Your task to perform on an android device: turn on showing notifications on the lock screen Image 0: 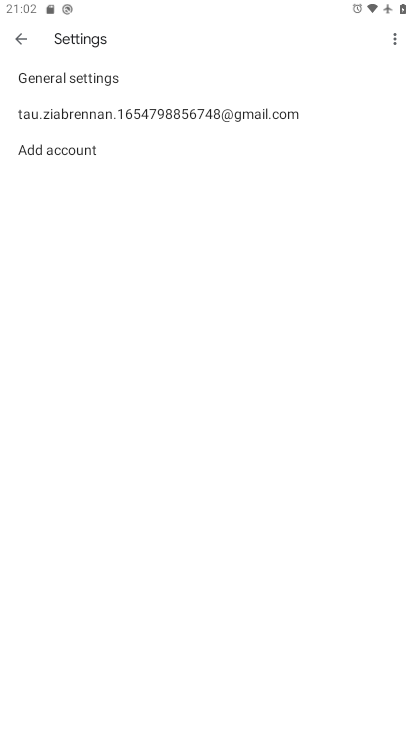
Step 0: press home button
Your task to perform on an android device: turn on showing notifications on the lock screen Image 1: 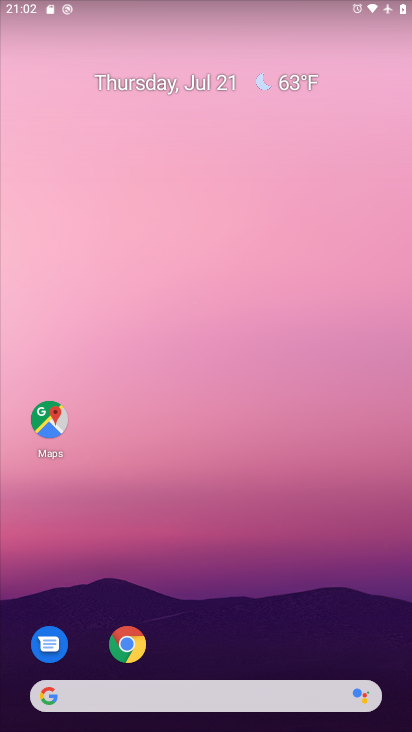
Step 1: drag from (285, 660) to (221, 198)
Your task to perform on an android device: turn on showing notifications on the lock screen Image 2: 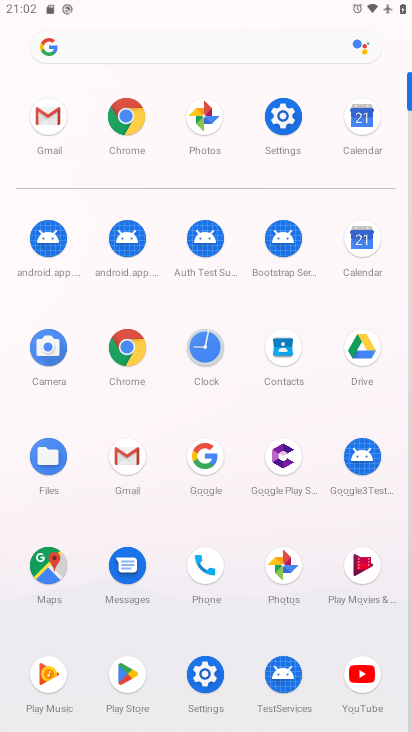
Step 2: click (279, 107)
Your task to perform on an android device: turn on showing notifications on the lock screen Image 3: 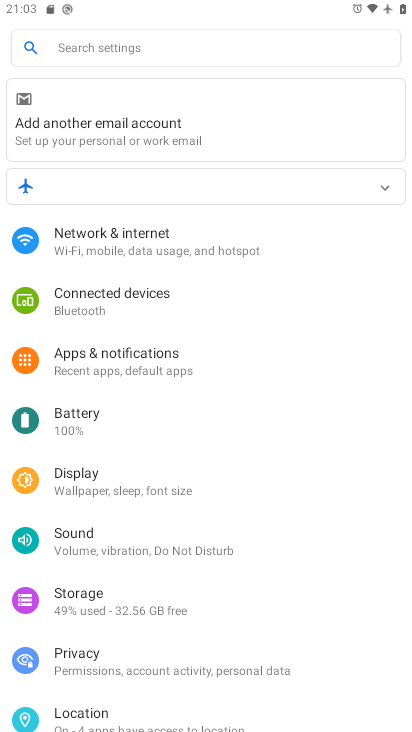
Step 3: click (85, 349)
Your task to perform on an android device: turn on showing notifications on the lock screen Image 4: 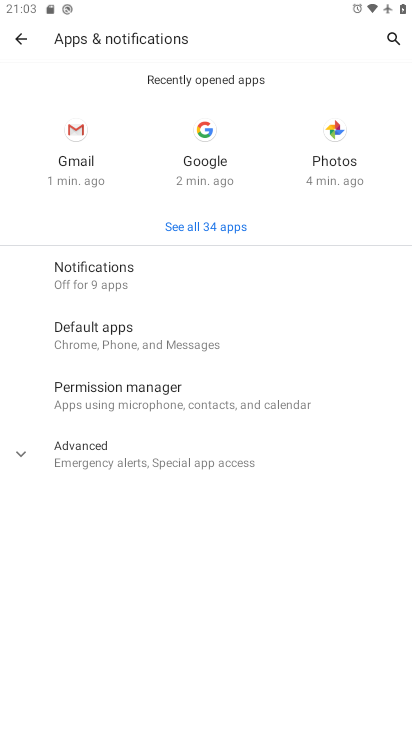
Step 4: click (121, 276)
Your task to perform on an android device: turn on showing notifications on the lock screen Image 5: 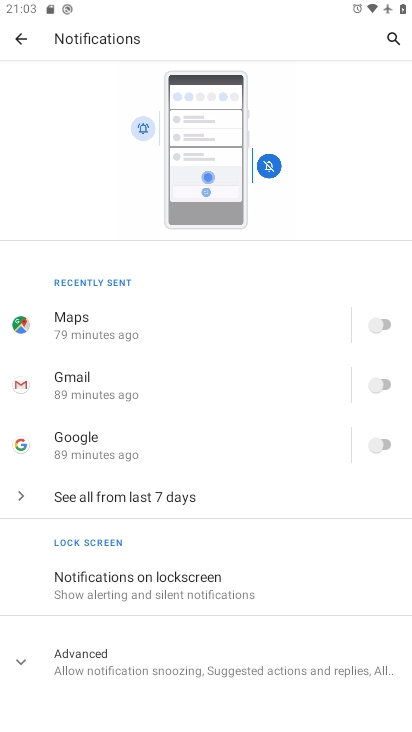
Step 5: click (214, 586)
Your task to perform on an android device: turn on showing notifications on the lock screen Image 6: 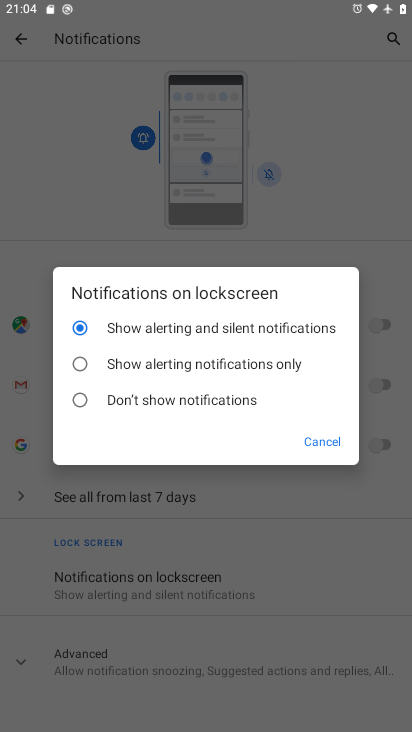
Step 6: task complete